Your task to perform on an android device: What is the recent news? Image 0: 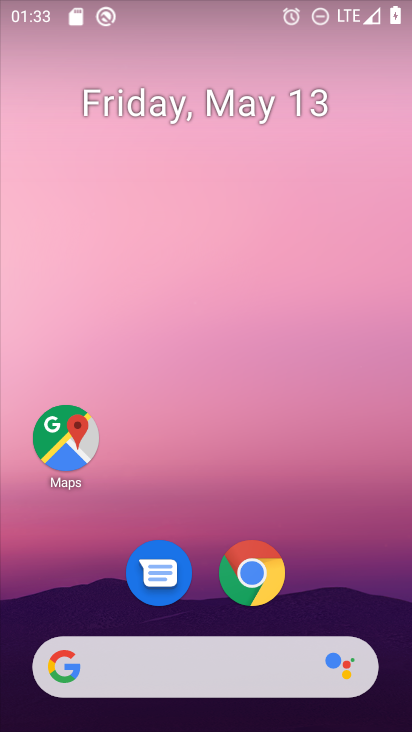
Step 0: click (211, 670)
Your task to perform on an android device: What is the recent news? Image 1: 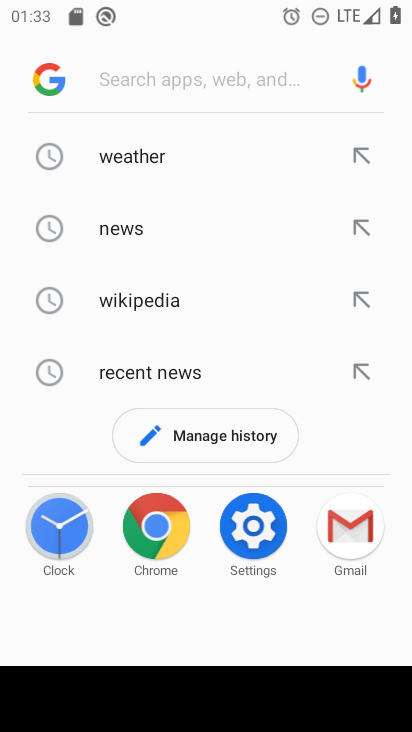
Step 1: click (246, 388)
Your task to perform on an android device: What is the recent news? Image 2: 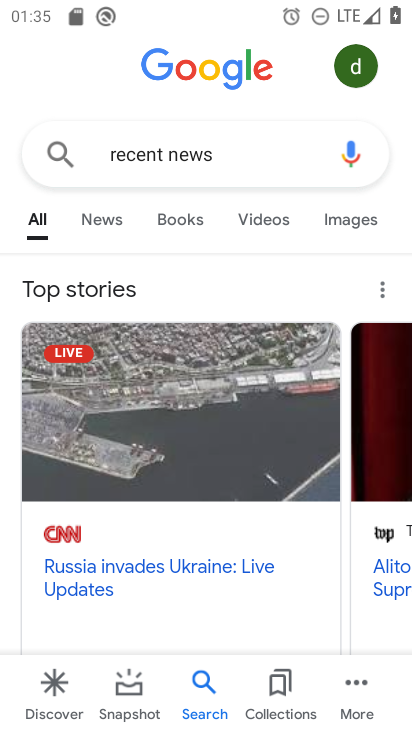
Step 2: task complete